Your task to perform on an android device: turn off javascript in the chrome app Image 0: 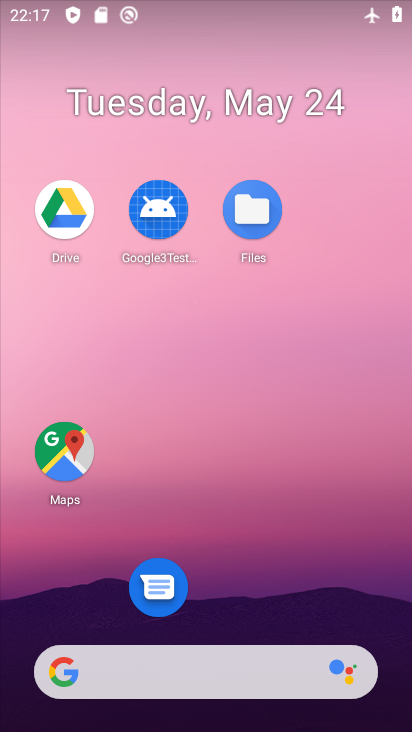
Step 0: drag from (236, 648) to (245, 77)
Your task to perform on an android device: turn off javascript in the chrome app Image 1: 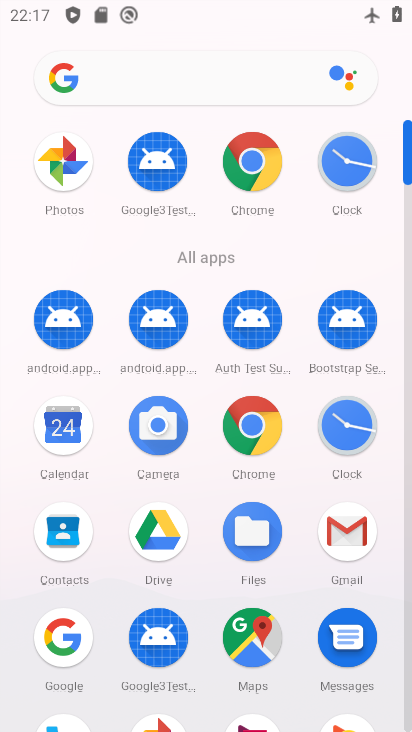
Step 1: click (251, 193)
Your task to perform on an android device: turn off javascript in the chrome app Image 2: 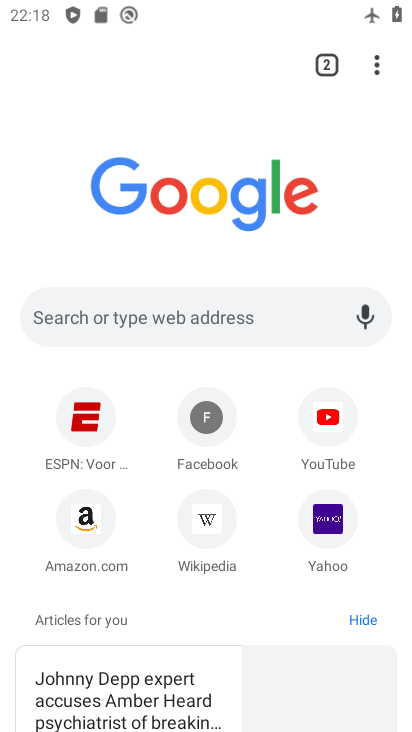
Step 2: click (368, 53)
Your task to perform on an android device: turn off javascript in the chrome app Image 3: 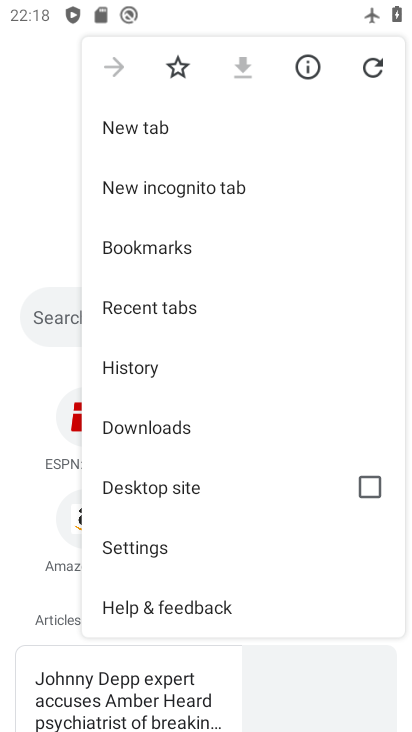
Step 3: click (146, 534)
Your task to perform on an android device: turn off javascript in the chrome app Image 4: 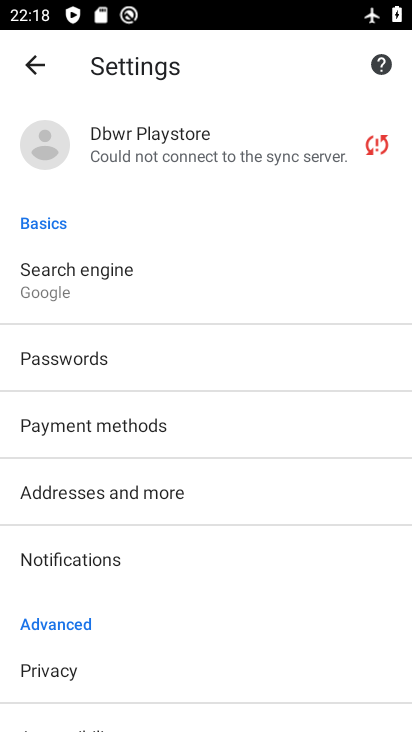
Step 4: drag from (107, 569) to (135, 223)
Your task to perform on an android device: turn off javascript in the chrome app Image 5: 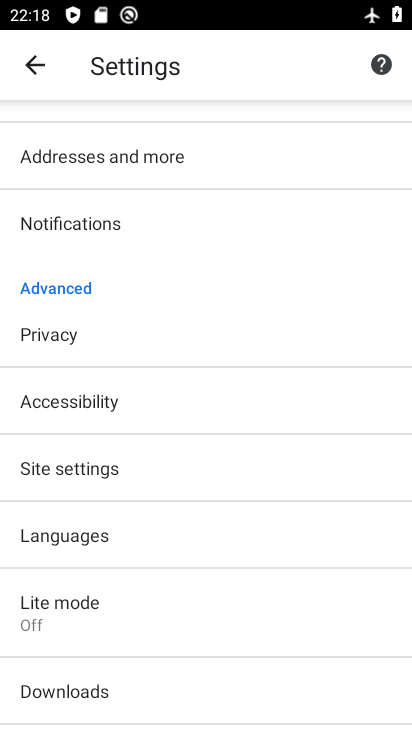
Step 5: click (99, 467)
Your task to perform on an android device: turn off javascript in the chrome app Image 6: 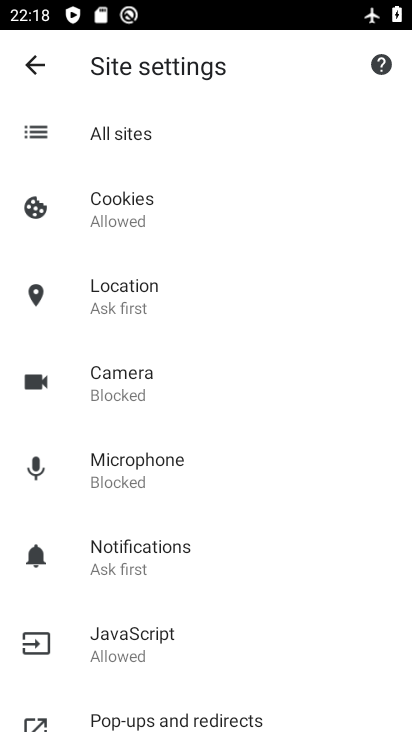
Step 6: click (112, 631)
Your task to perform on an android device: turn off javascript in the chrome app Image 7: 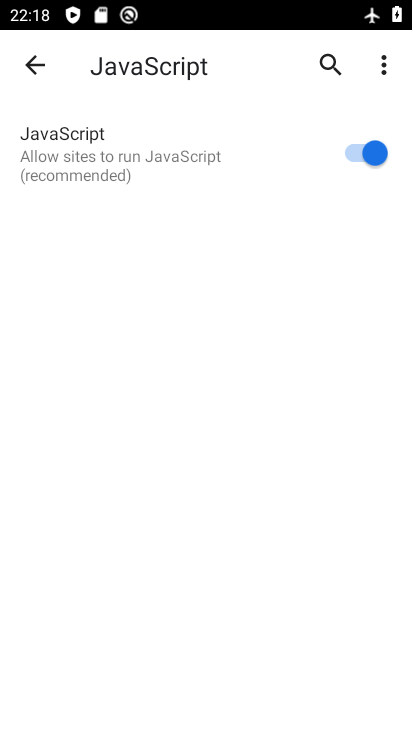
Step 7: click (366, 146)
Your task to perform on an android device: turn off javascript in the chrome app Image 8: 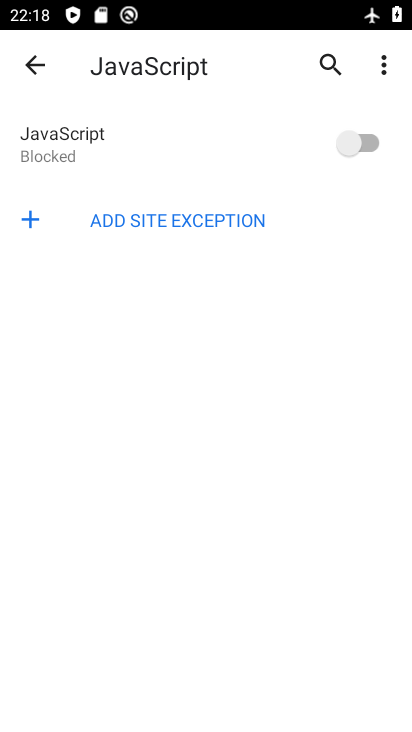
Step 8: task complete